Your task to perform on an android device: Go to Yahoo.com Image 0: 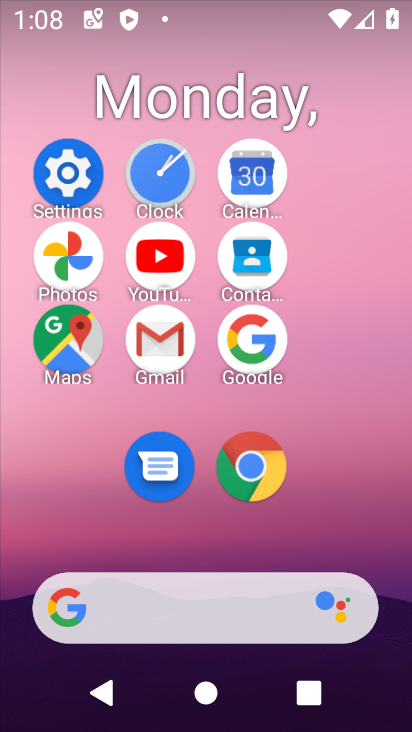
Step 0: click (237, 458)
Your task to perform on an android device: Go to Yahoo.com Image 1: 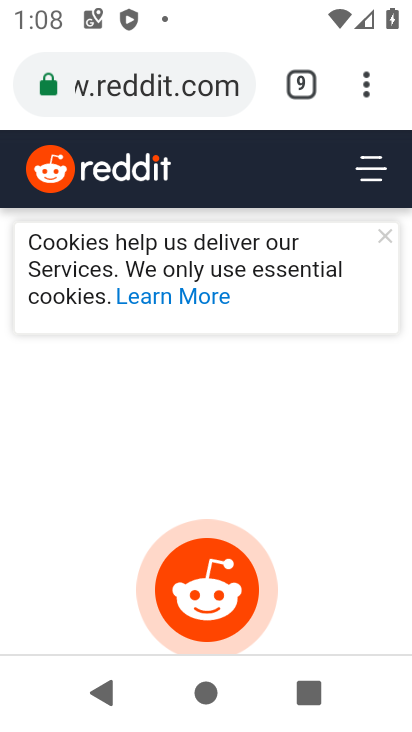
Step 1: click (320, 72)
Your task to perform on an android device: Go to Yahoo.com Image 2: 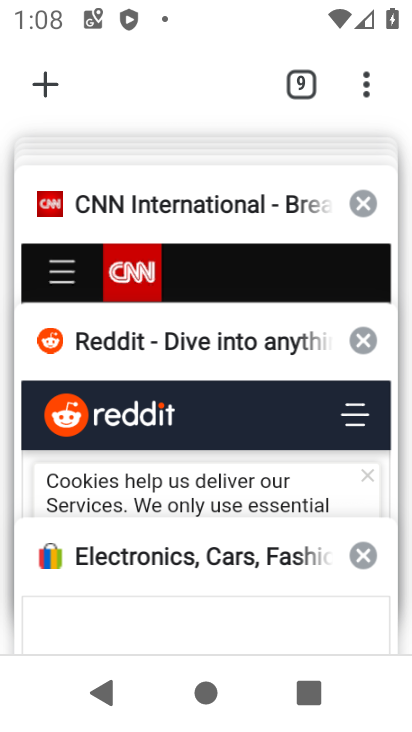
Step 2: drag from (250, 291) to (262, 546)
Your task to perform on an android device: Go to Yahoo.com Image 3: 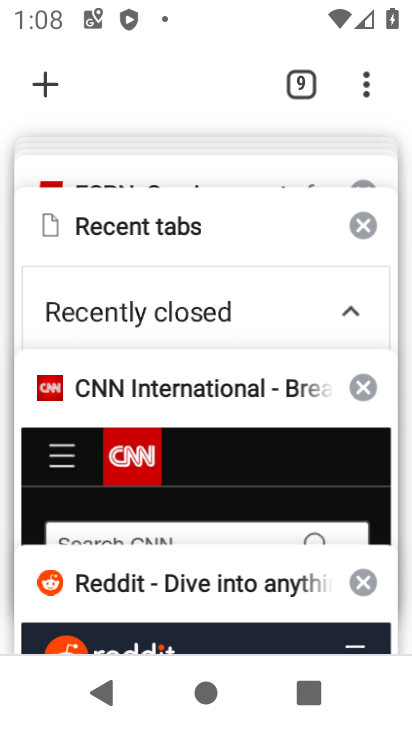
Step 3: drag from (209, 211) to (178, 575)
Your task to perform on an android device: Go to Yahoo.com Image 4: 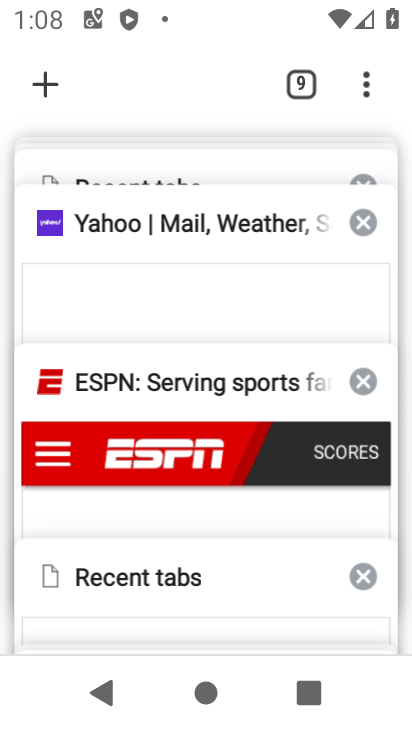
Step 4: click (250, 264)
Your task to perform on an android device: Go to Yahoo.com Image 5: 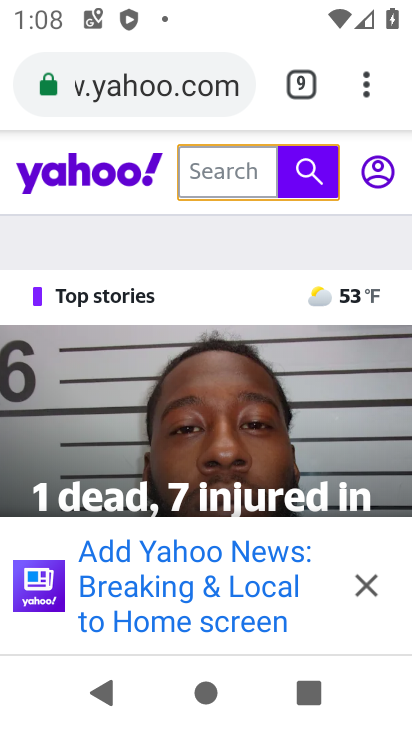
Step 5: task complete